Your task to perform on an android device: Open Google Chrome and open the bookmarks view Image 0: 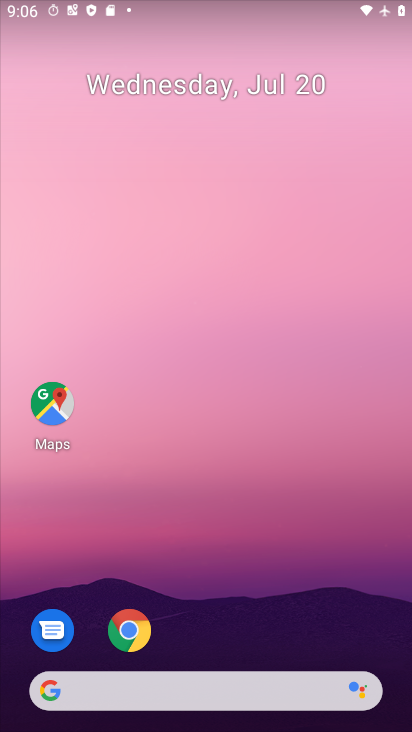
Step 0: drag from (254, 645) to (245, 223)
Your task to perform on an android device: Open Google Chrome and open the bookmarks view Image 1: 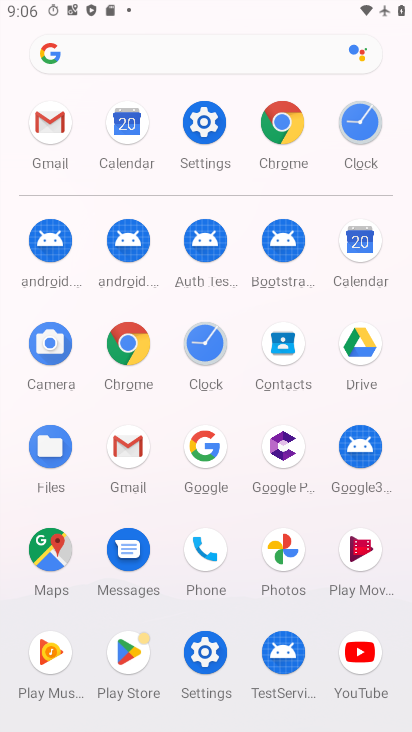
Step 1: click (277, 156)
Your task to perform on an android device: Open Google Chrome and open the bookmarks view Image 2: 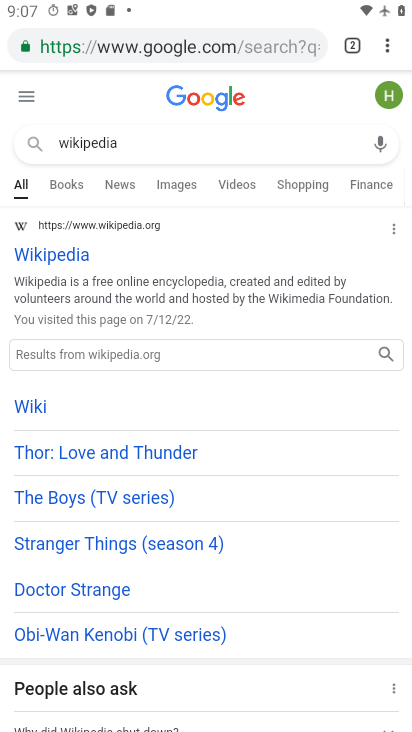
Step 2: click (390, 45)
Your task to perform on an android device: Open Google Chrome and open the bookmarks view Image 3: 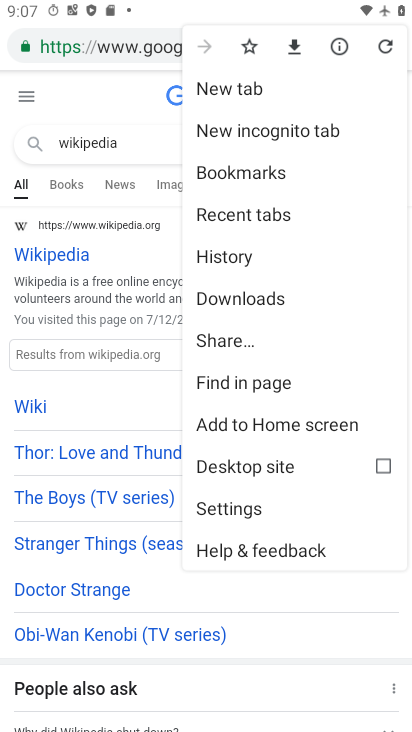
Step 3: click (226, 182)
Your task to perform on an android device: Open Google Chrome and open the bookmarks view Image 4: 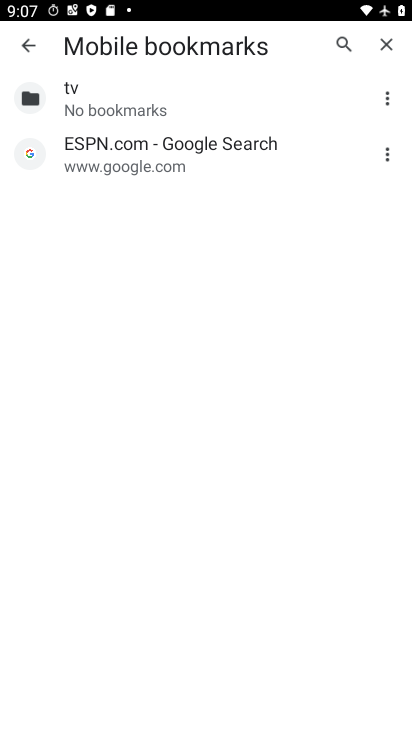
Step 4: task complete